Your task to perform on an android device: turn on location history Image 0: 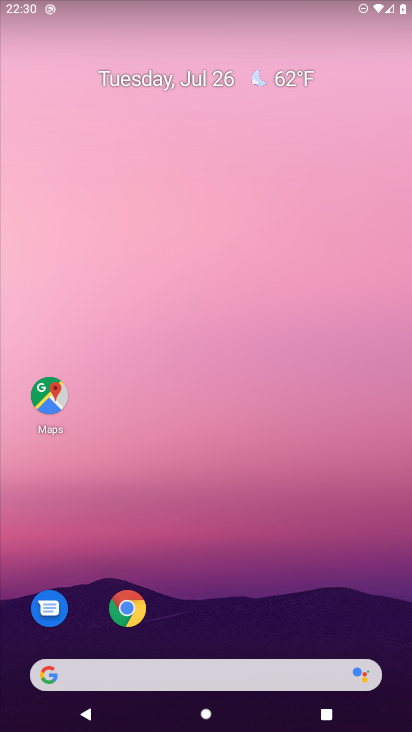
Step 0: drag from (33, 701) to (158, 43)
Your task to perform on an android device: turn on location history Image 1: 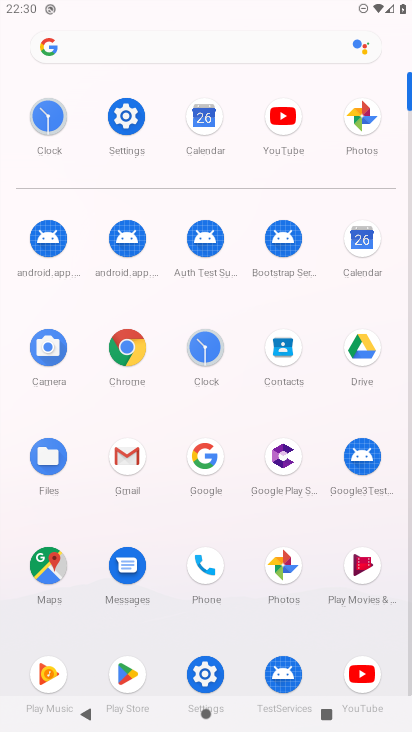
Step 1: click (202, 661)
Your task to perform on an android device: turn on location history Image 2: 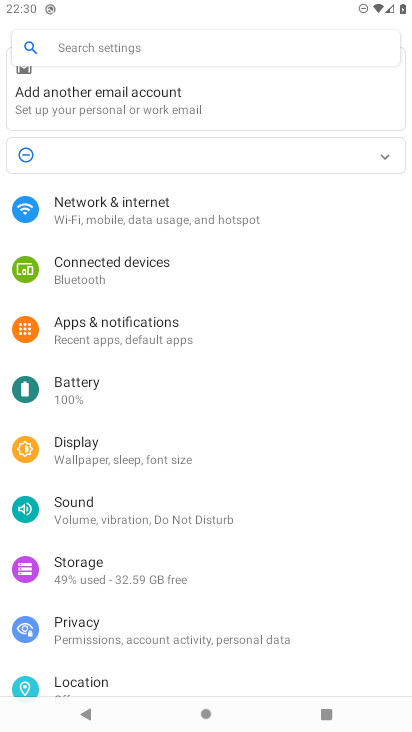
Step 2: drag from (177, 615) to (184, 286)
Your task to perform on an android device: turn on location history Image 3: 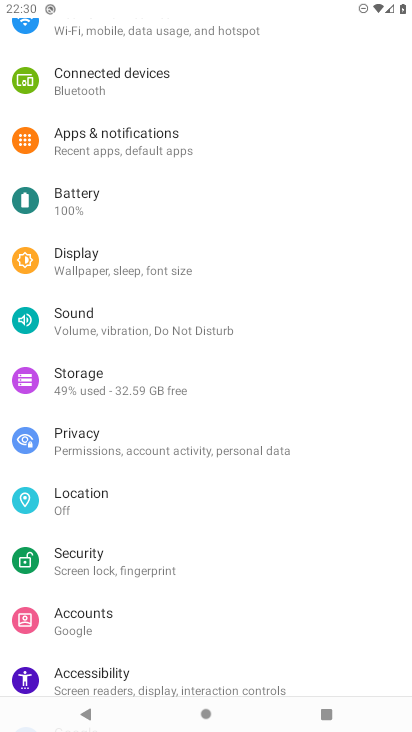
Step 3: click (97, 504)
Your task to perform on an android device: turn on location history Image 4: 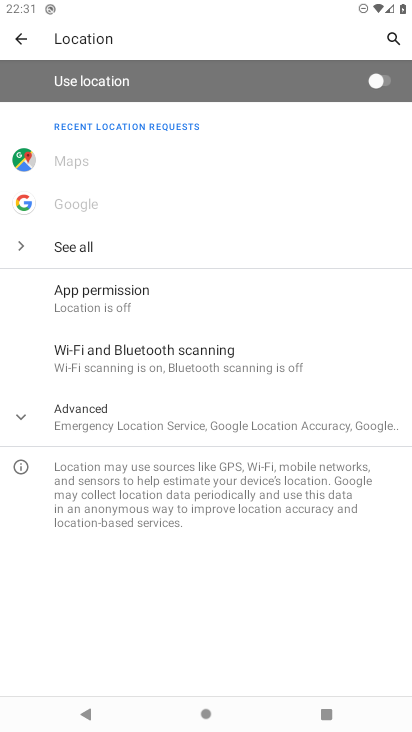
Step 4: click (385, 73)
Your task to perform on an android device: turn on location history Image 5: 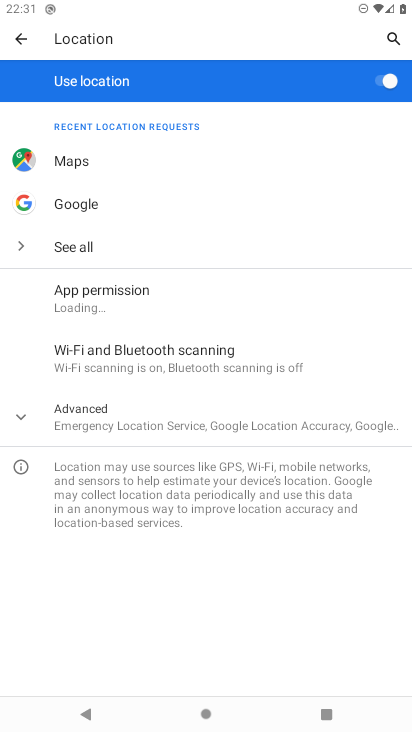
Step 5: task complete